Your task to perform on an android device: find snoozed emails in the gmail app Image 0: 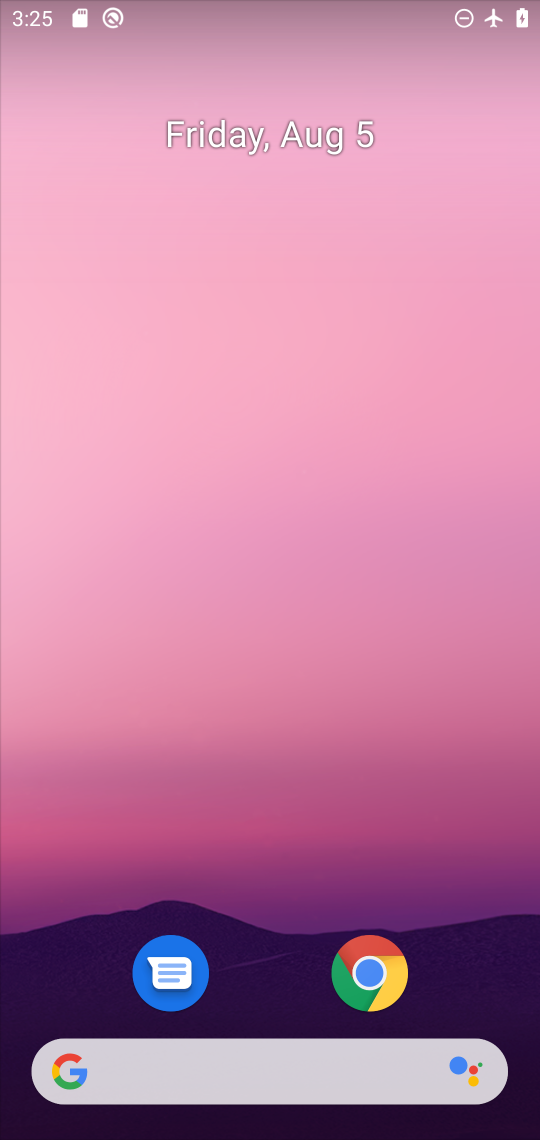
Step 0: drag from (277, 1000) to (305, 20)
Your task to perform on an android device: find snoozed emails in the gmail app Image 1: 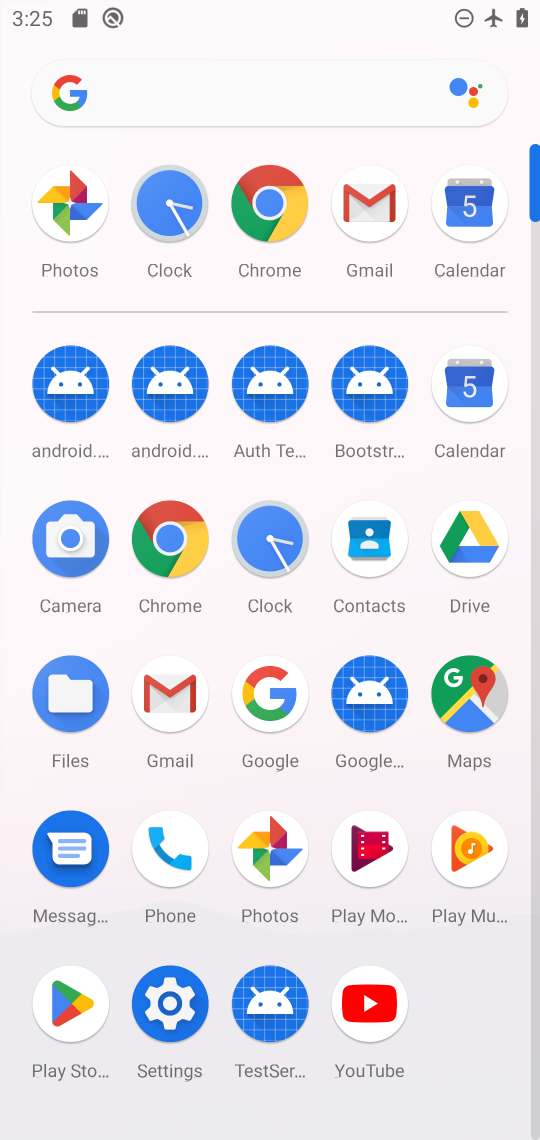
Step 1: click (184, 705)
Your task to perform on an android device: find snoozed emails in the gmail app Image 2: 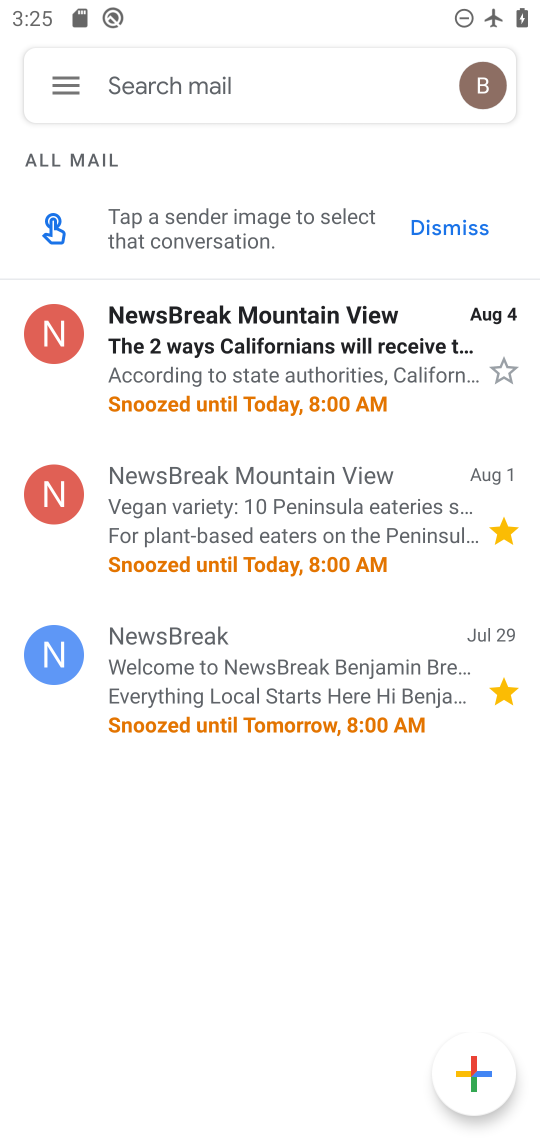
Step 2: click (70, 94)
Your task to perform on an android device: find snoozed emails in the gmail app Image 3: 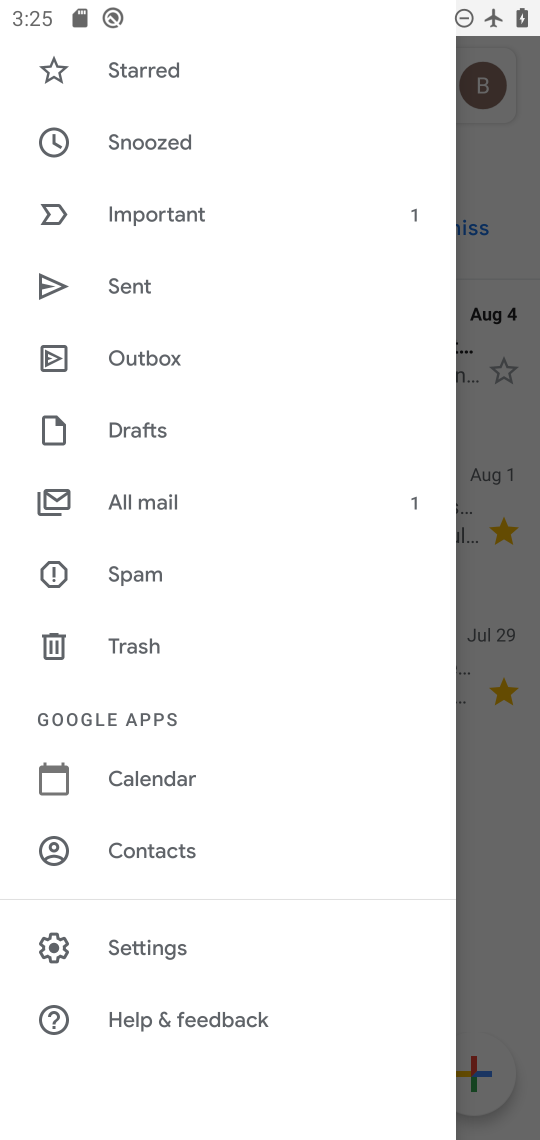
Step 3: click (93, 139)
Your task to perform on an android device: find snoozed emails in the gmail app Image 4: 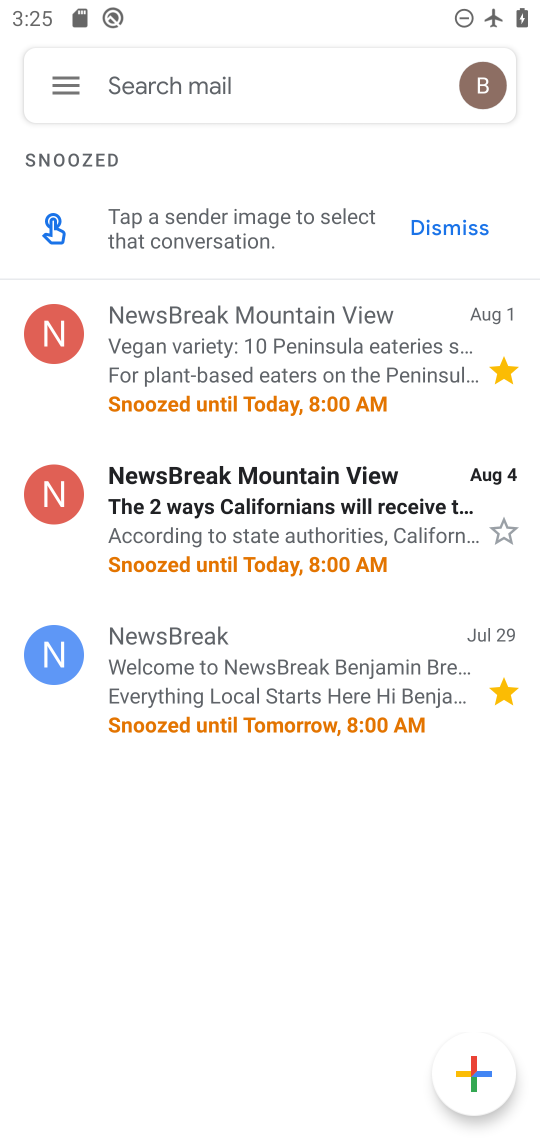
Step 4: task complete